Your task to perform on an android device: turn vacation reply on in the gmail app Image 0: 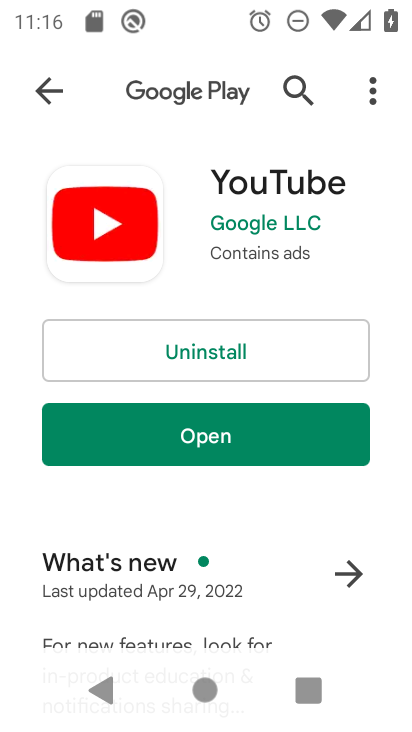
Step 0: press home button
Your task to perform on an android device: turn vacation reply on in the gmail app Image 1: 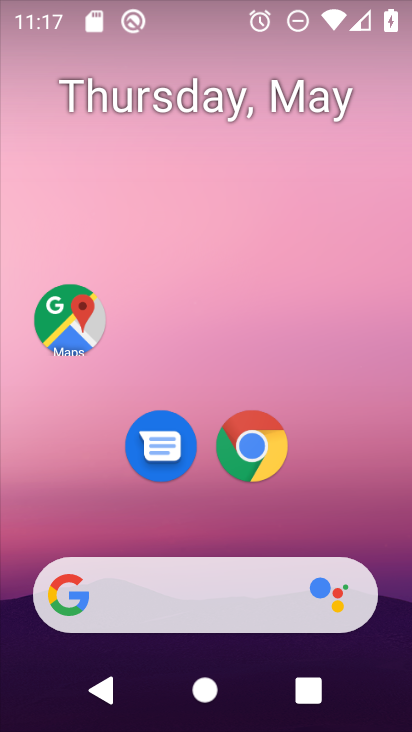
Step 1: drag from (324, 643) to (312, 199)
Your task to perform on an android device: turn vacation reply on in the gmail app Image 2: 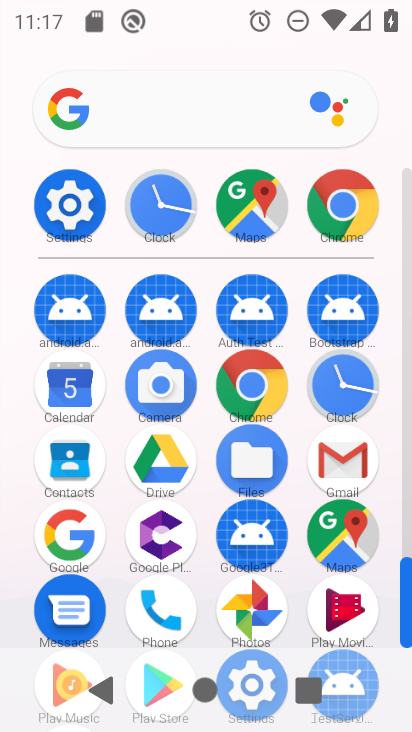
Step 2: click (369, 437)
Your task to perform on an android device: turn vacation reply on in the gmail app Image 3: 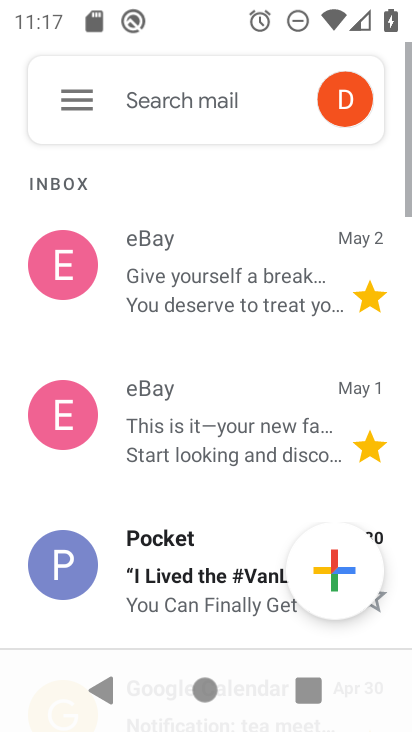
Step 3: click (69, 106)
Your task to perform on an android device: turn vacation reply on in the gmail app Image 4: 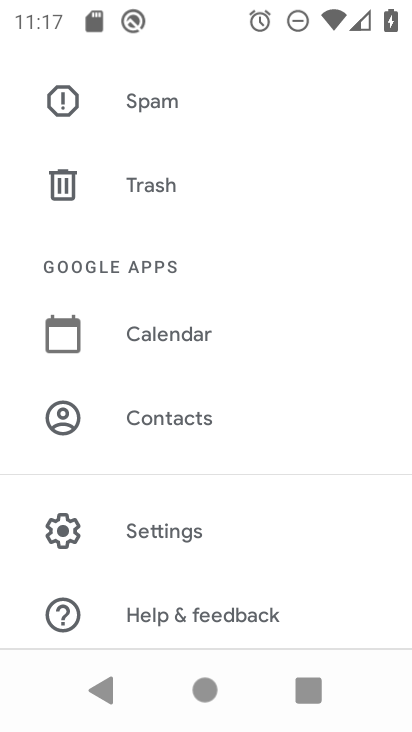
Step 4: click (182, 546)
Your task to perform on an android device: turn vacation reply on in the gmail app Image 5: 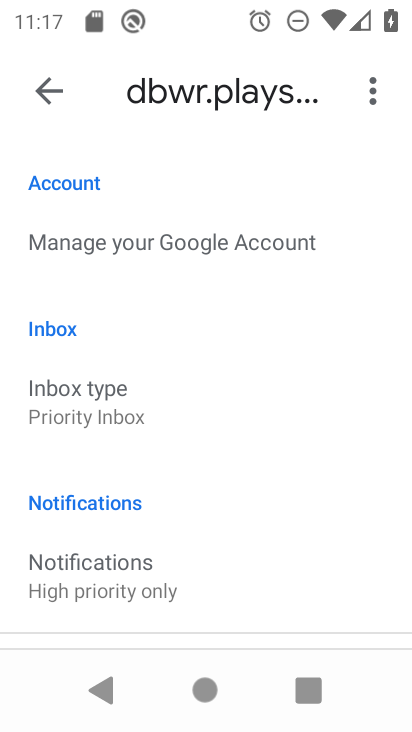
Step 5: drag from (188, 543) to (249, 169)
Your task to perform on an android device: turn vacation reply on in the gmail app Image 6: 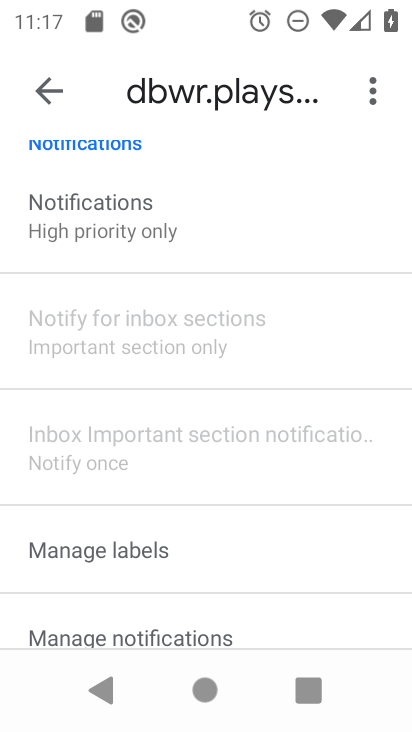
Step 6: drag from (197, 573) to (226, 333)
Your task to perform on an android device: turn vacation reply on in the gmail app Image 7: 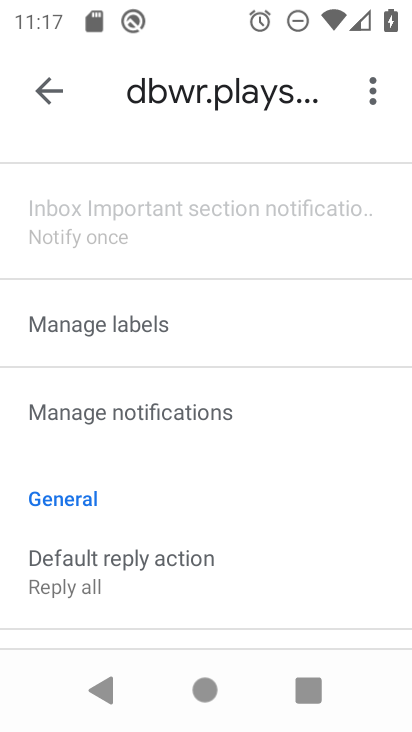
Step 7: drag from (187, 537) to (179, 260)
Your task to perform on an android device: turn vacation reply on in the gmail app Image 8: 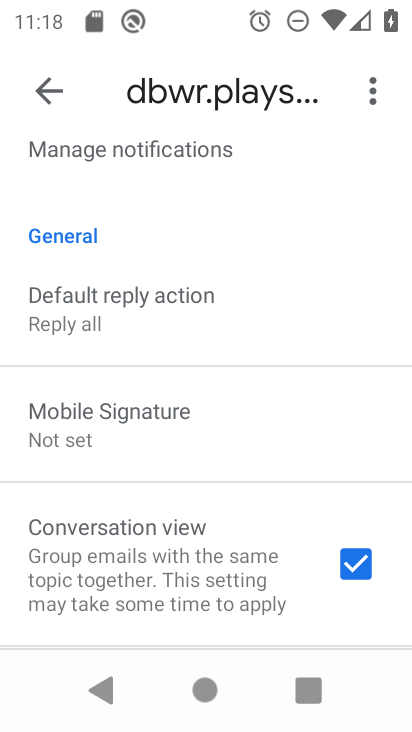
Step 8: drag from (186, 503) to (196, 210)
Your task to perform on an android device: turn vacation reply on in the gmail app Image 9: 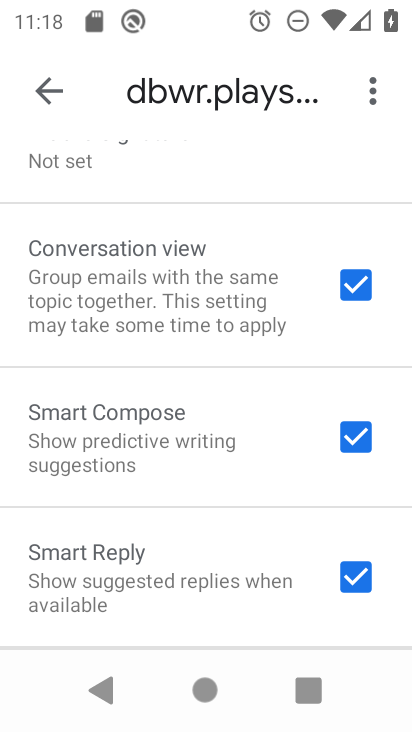
Step 9: drag from (190, 512) to (272, 313)
Your task to perform on an android device: turn vacation reply on in the gmail app Image 10: 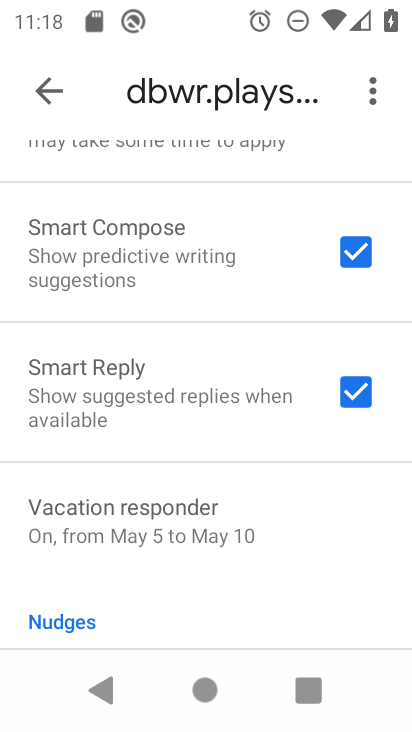
Step 10: click (200, 535)
Your task to perform on an android device: turn vacation reply on in the gmail app Image 11: 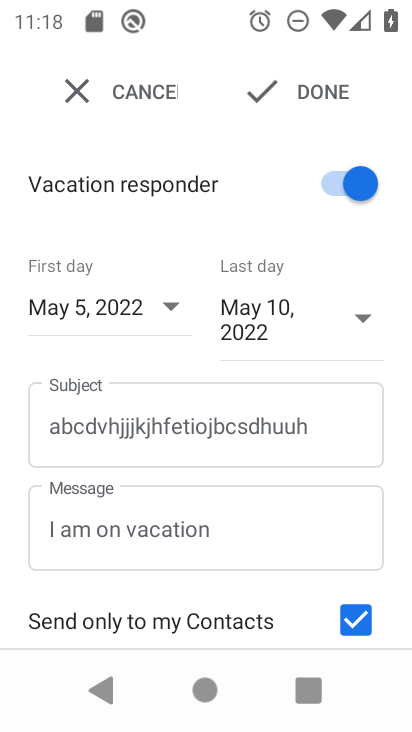
Step 11: task complete